Your task to perform on an android device: toggle notifications settings in the gmail app Image 0: 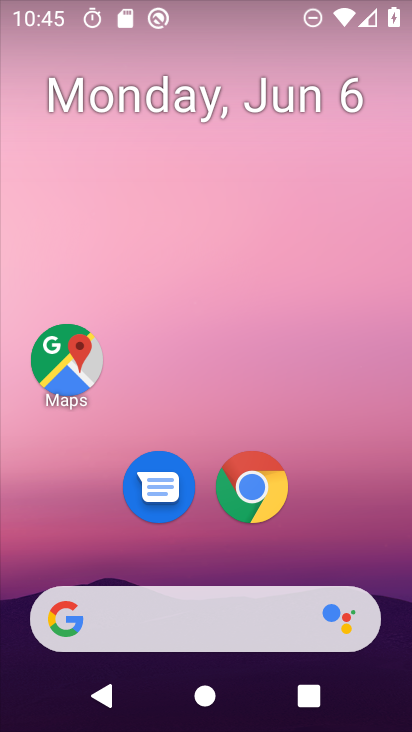
Step 0: drag from (408, 642) to (317, 47)
Your task to perform on an android device: toggle notifications settings in the gmail app Image 1: 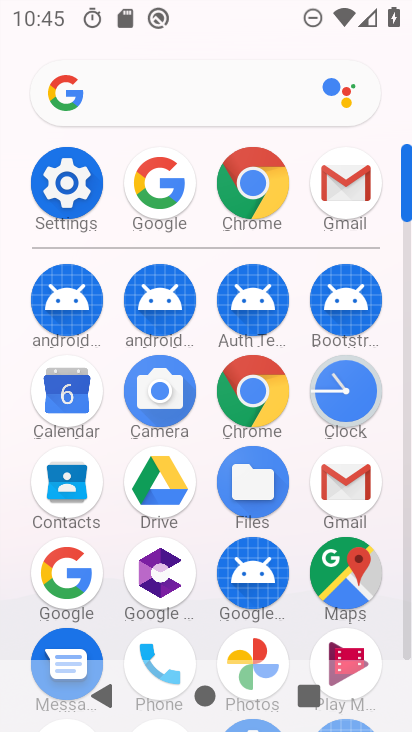
Step 1: click (352, 498)
Your task to perform on an android device: toggle notifications settings in the gmail app Image 2: 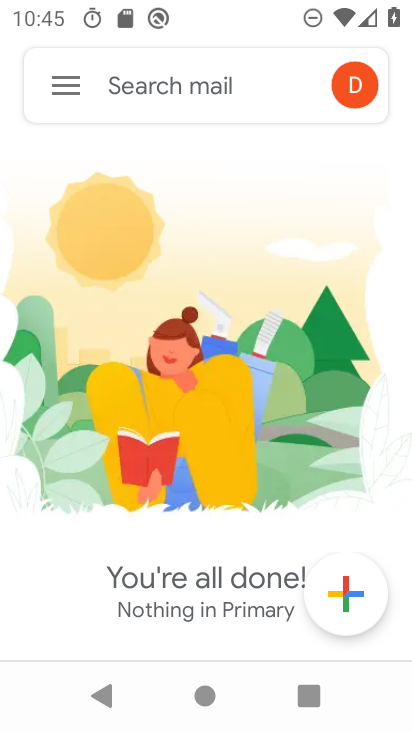
Step 2: click (72, 91)
Your task to perform on an android device: toggle notifications settings in the gmail app Image 3: 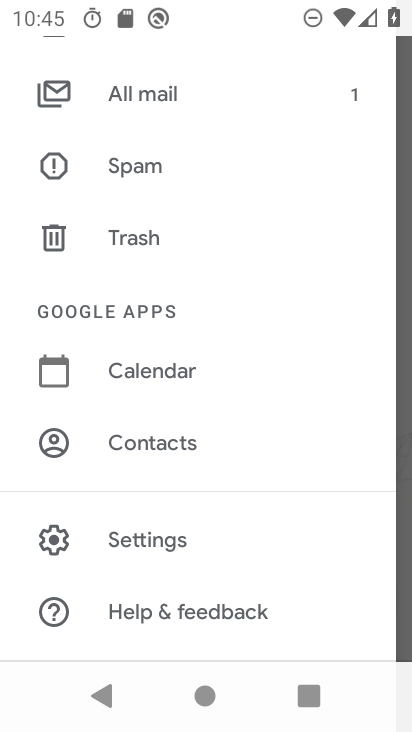
Step 3: click (143, 545)
Your task to perform on an android device: toggle notifications settings in the gmail app Image 4: 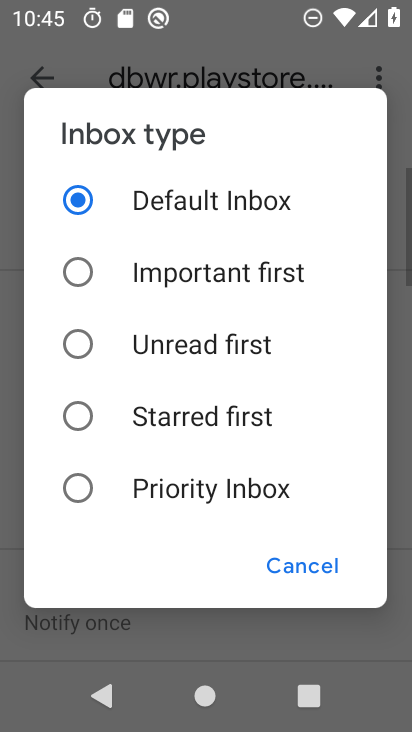
Step 4: click (306, 566)
Your task to perform on an android device: toggle notifications settings in the gmail app Image 5: 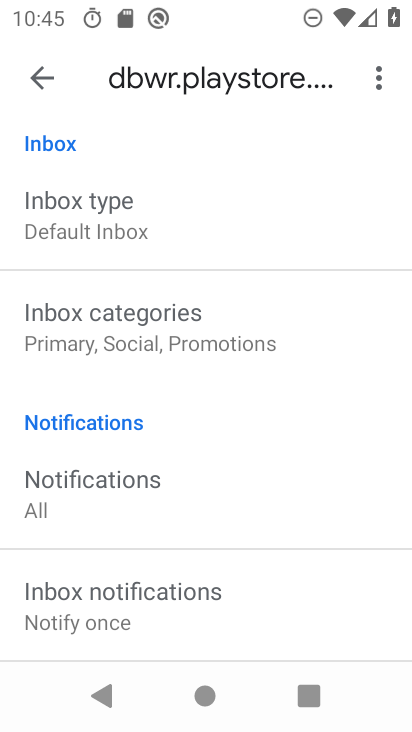
Step 5: click (91, 515)
Your task to perform on an android device: toggle notifications settings in the gmail app Image 6: 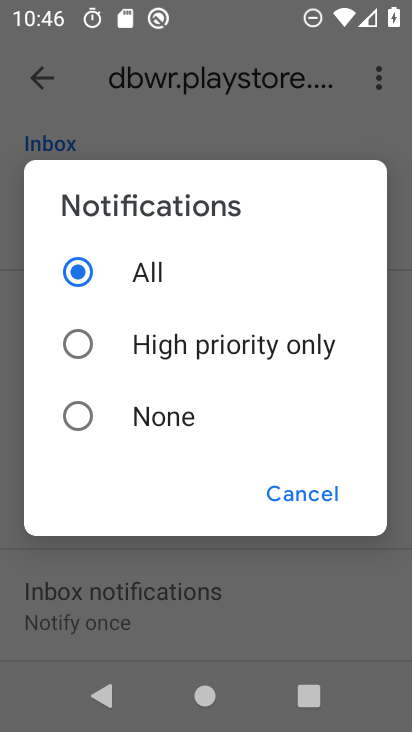
Step 6: click (83, 420)
Your task to perform on an android device: toggle notifications settings in the gmail app Image 7: 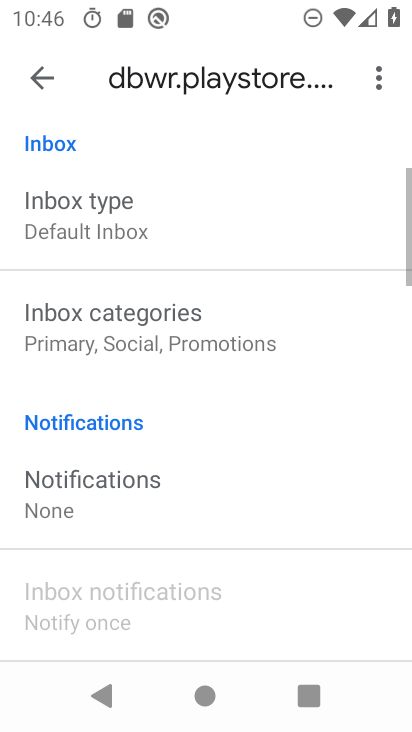
Step 7: task complete